Your task to perform on an android device: Find coffee shops on Maps Image 0: 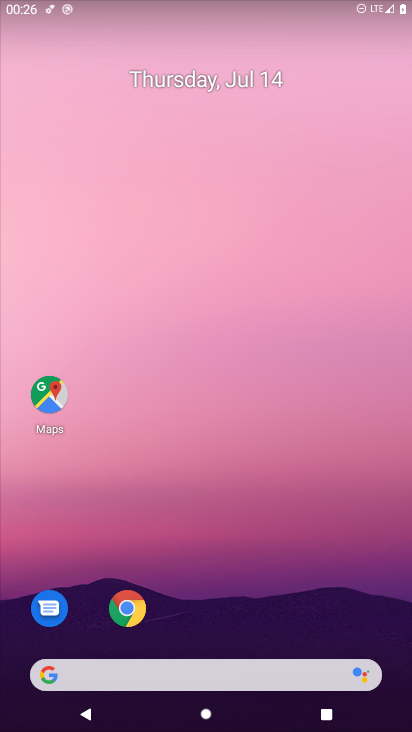
Step 0: drag from (225, 543) to (250, 24)
Your task to perform on an android device: Find coffee shops on Maps Image 1: 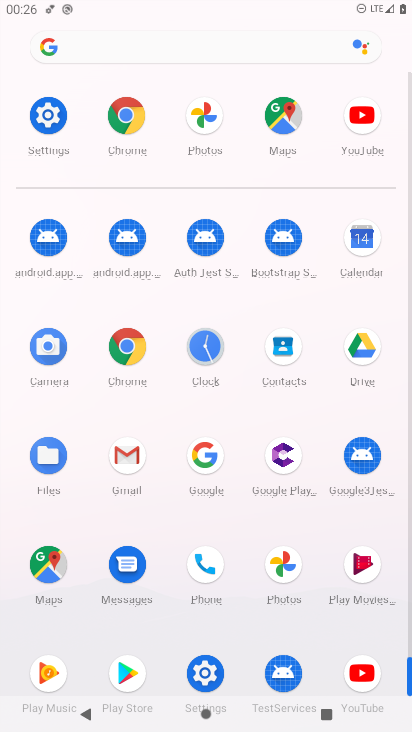
Step 1: click (280, 115)
Your task to perform on an android device: Find coffee shops on Maps Image 2: 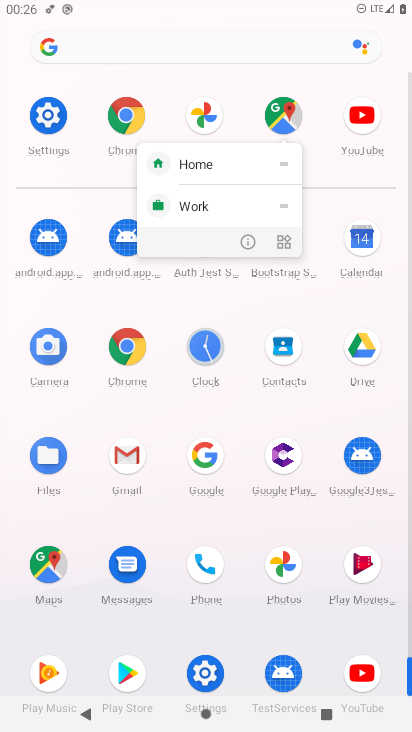
Step 2: click (280, 115)
Your task to perform on an android device: Find coffee shops on Maps Image 3: 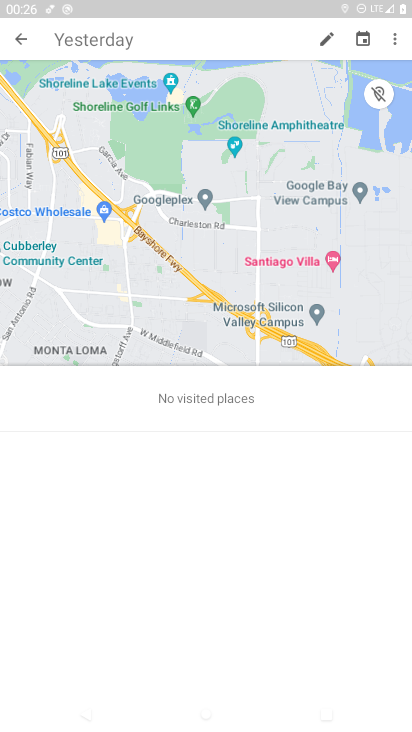
Step 3: click (127, 41)
Your task to perform on an android device: Find coffee shops on Maps Image 4: 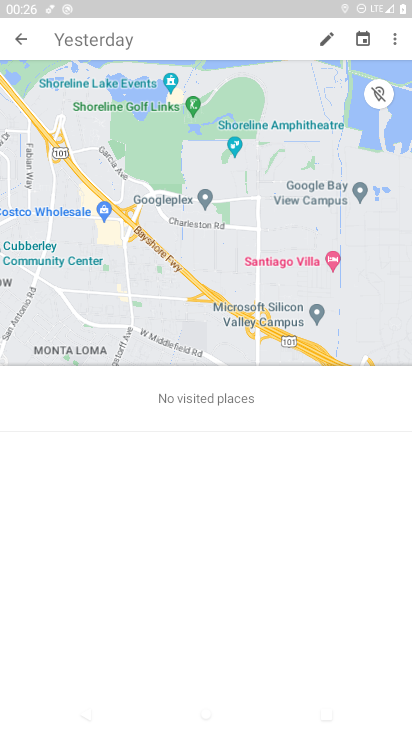
Step 4: press back button
Your task to perform on an android device: Find coffee shops on Maps Image 5: 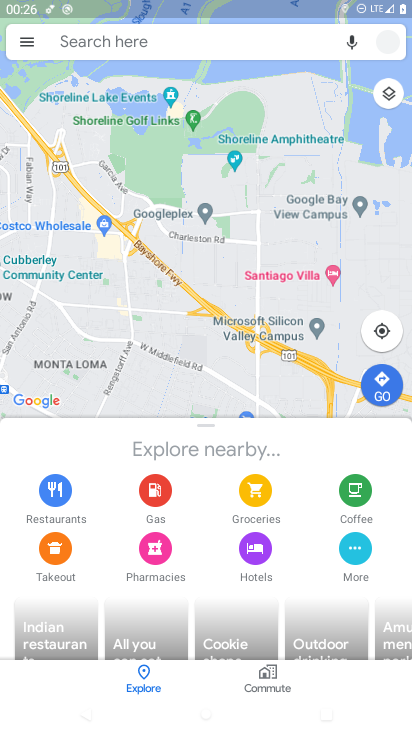
Step 5: click (147, 35)
Your task to perform on an android device: Find coffee shops on Maps Image 6: 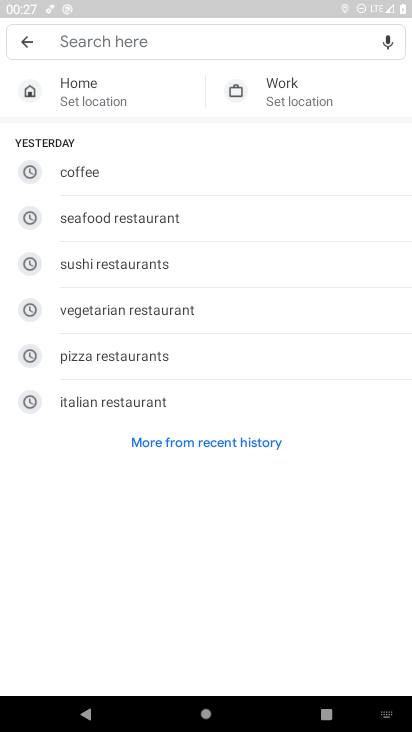
Step 6: type "coffee shops "
Your task to perform on an android device: Find coffee shops on Maps Image 7: 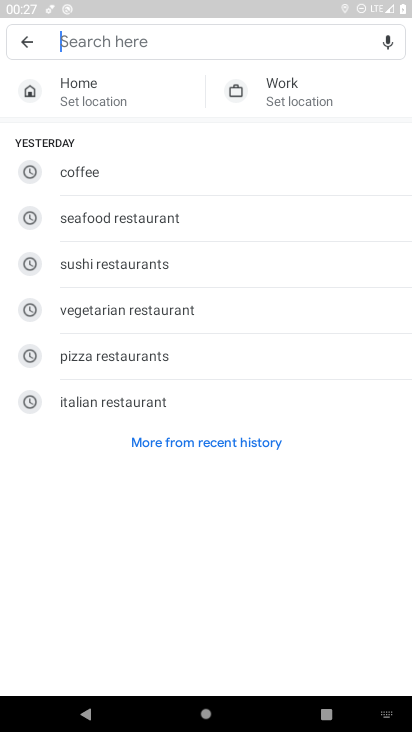
Step 7: click (123, 33)
Your task to perform on an android device: Find coffee shops on Maps Image 8: 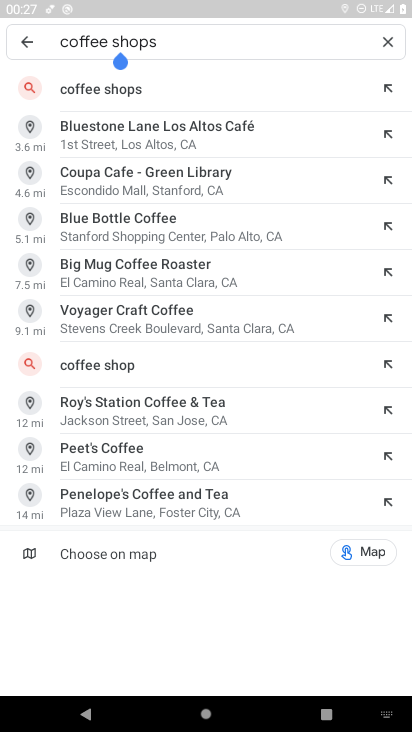
Step 8: click (81, 94)
Your task to perform on an android device: Find coffee shops on Maps Image 9: 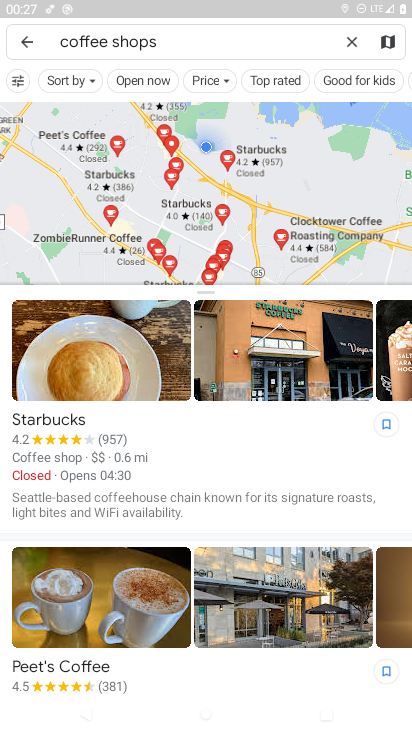
Step 9: task complete